Your task to perform on an android device: Go to eBay Image 0: 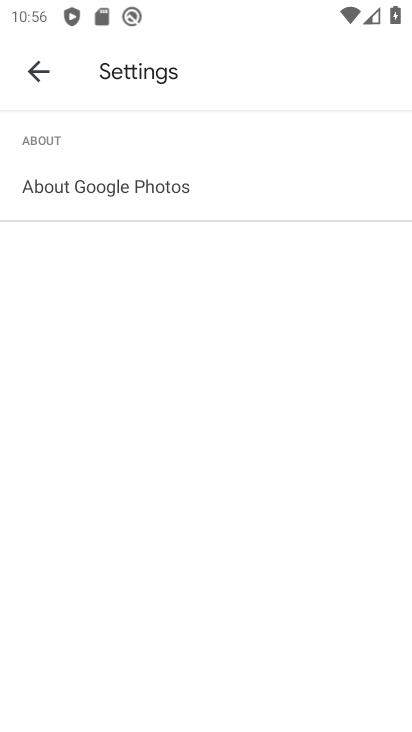
Step 0: press home button
Your task to perform on an android device: Go to eBay Image 1: 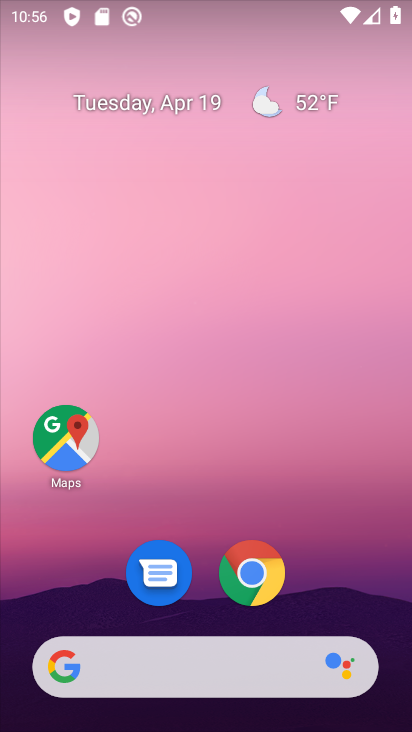
Step 1: drag from (195, 731) to (202, 66)
Your task to perform on an android device: Go to eBay Image 2: 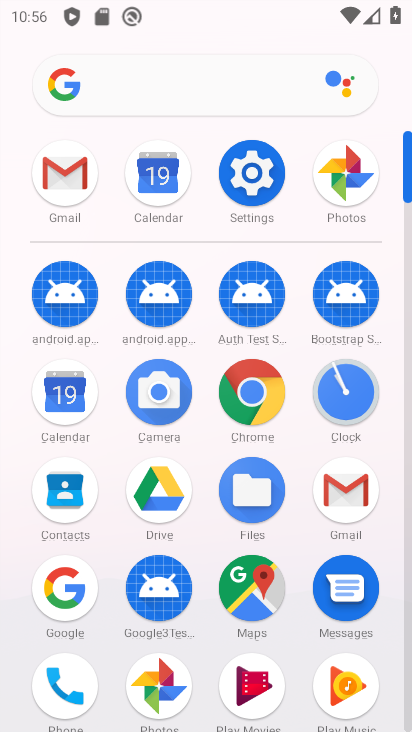
Step 2: drag from (206, 578) to (204, 129)
Your task to perform on an android device: Go to eBay Image 3: 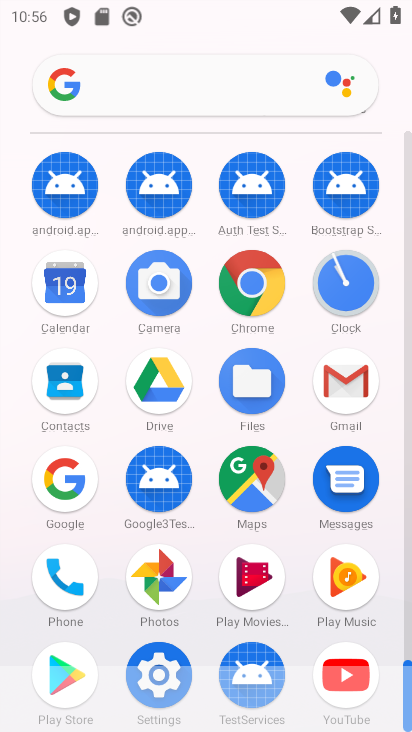
Step 3: click (254, 284)
Your task to perform on an android device: Go to eBay Image 4: 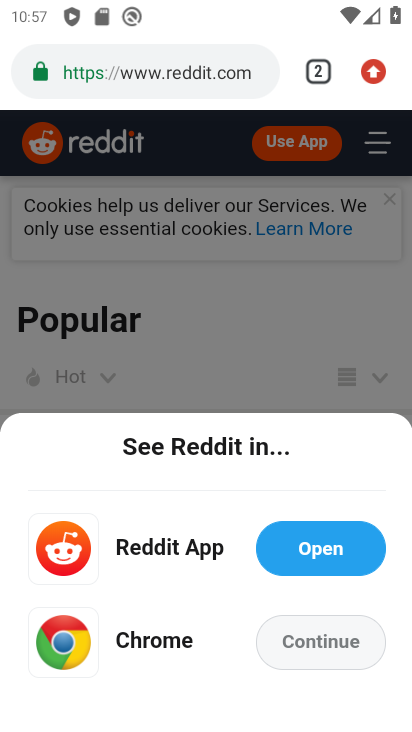
Step 4: click (190, 78)
Your task to perform on an android device: Go to eBay Image 5: 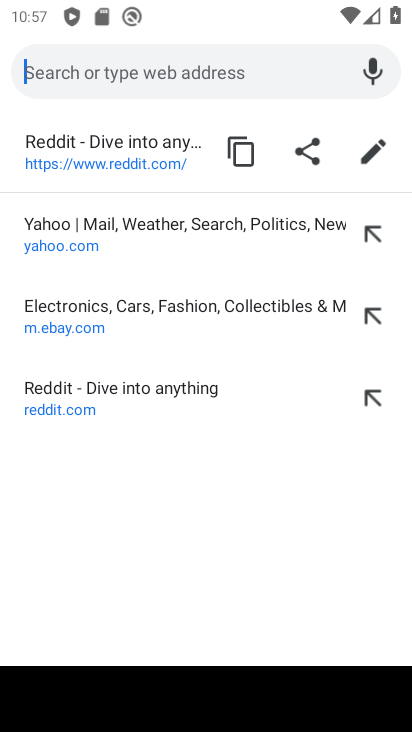
Step 5: type "eBay"
Your task to perform on an android device: Go to eBay Image 6: 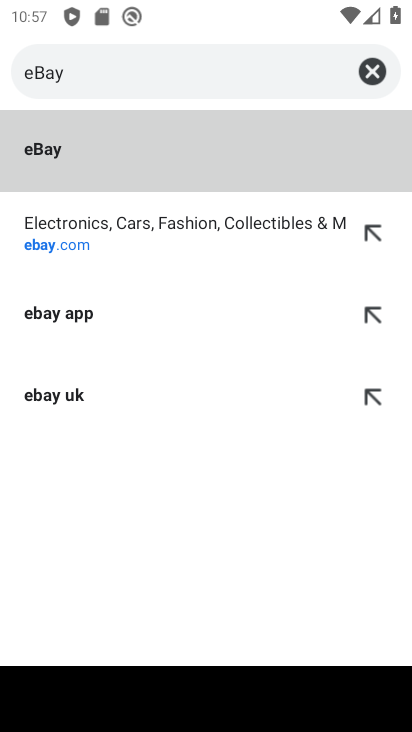
Step 6: click (48, 142)
Your task to perform on an android device: Go to eBay Image 7: 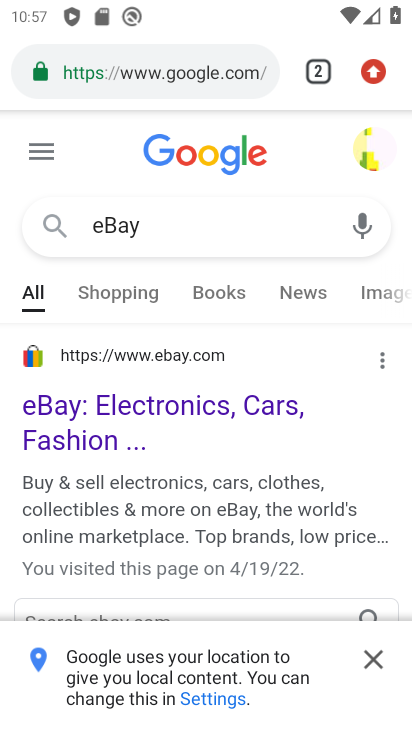
Step 7: click (126, 399)
Your task to perform on an android device: Go to eBay Image 8: 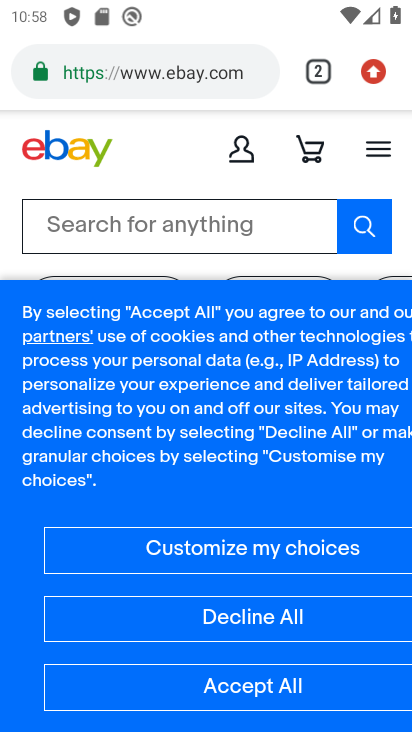
Step 8: task complete